Your task to perform on an android device: Open settings Image 0: 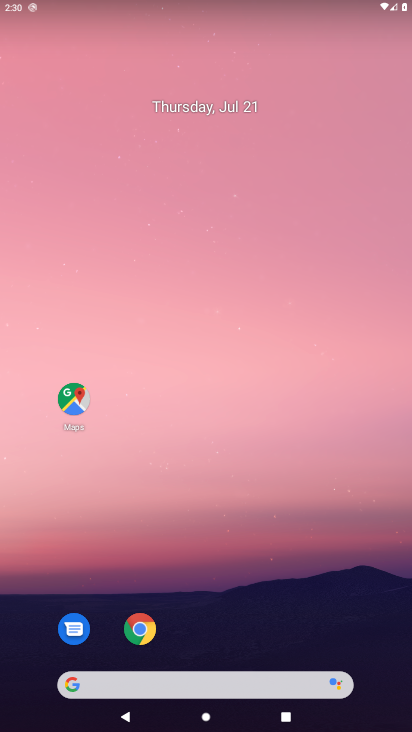
Step 0: drag from (29, 685) to (156, 265)
Your task to perform on an android device: Open settings Image 1: 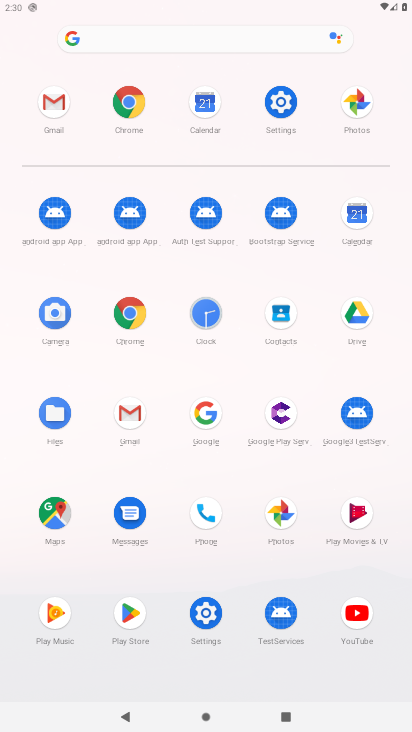
Step 1: click (194, 622)
Your task to perform on an android device: Open settings Image 2: 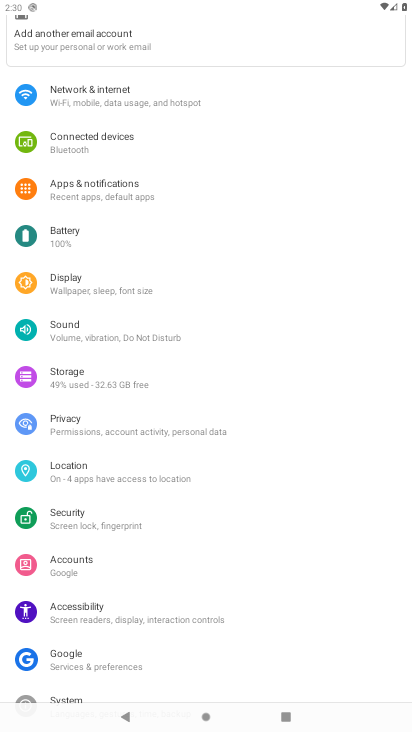
Step 2: task complete